Your task to perform on an android device: uninstall "Clock" Image 0: 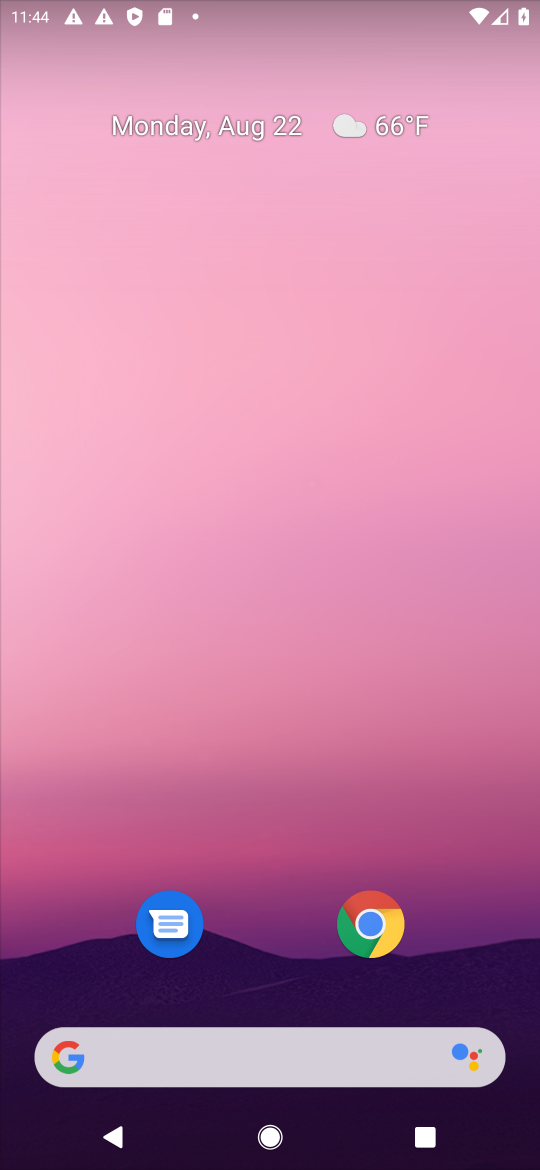
Step 0: drag from (475, 687) to (472, 100)
Your task to perform on an android device: uninstall "Clock" Image 1: 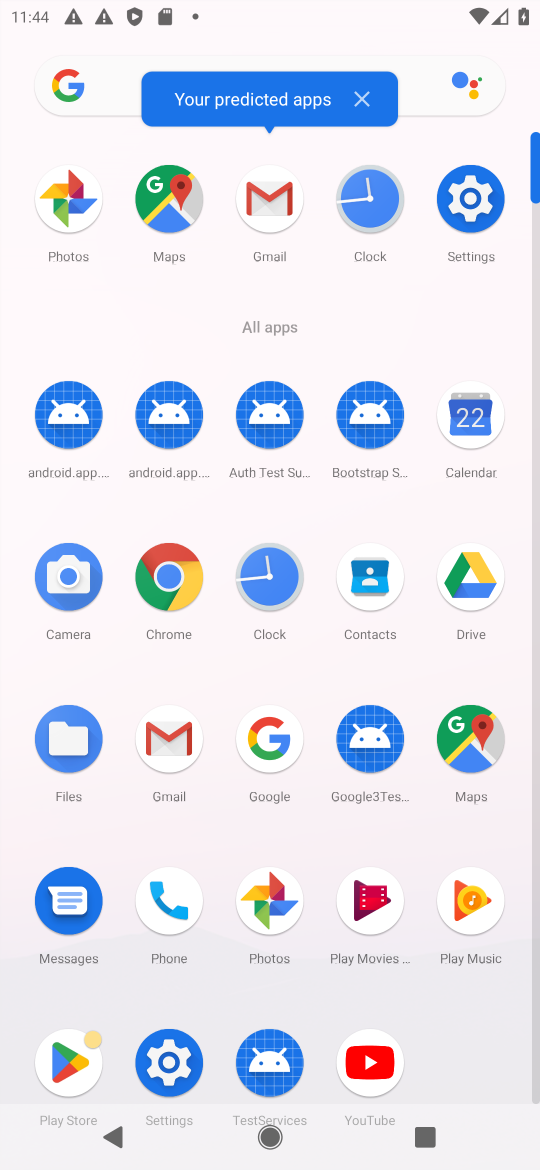
Step 1: drag from (447, 1008) to (422, 412)
Your task to perform on an android device: uninstall "Clock" Image 2: 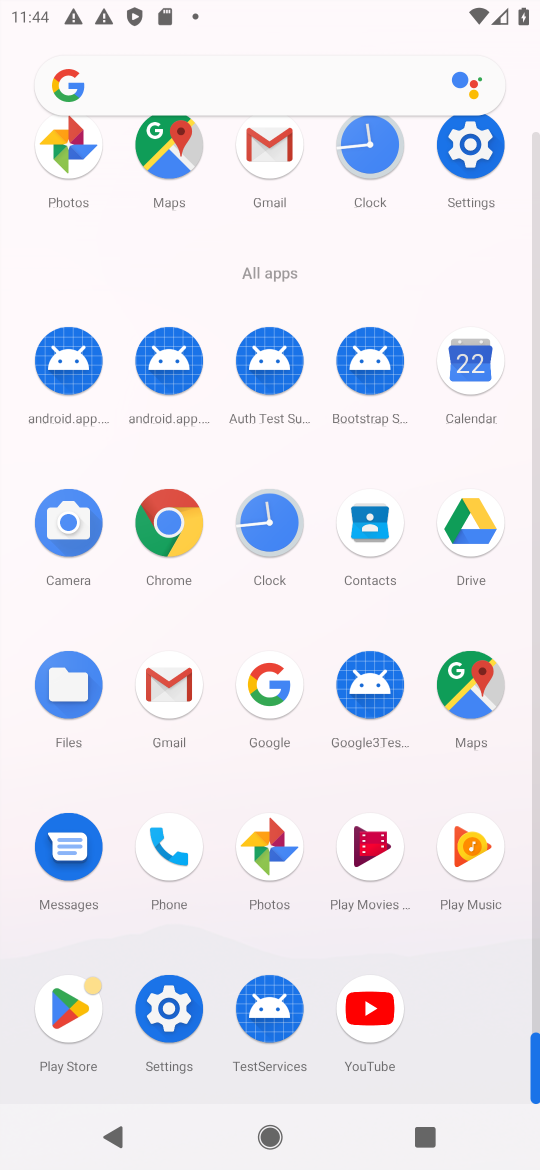
Step 2: click (62, 1009)
Your task to perform on an android device: uninstall "Clock" Image 3: 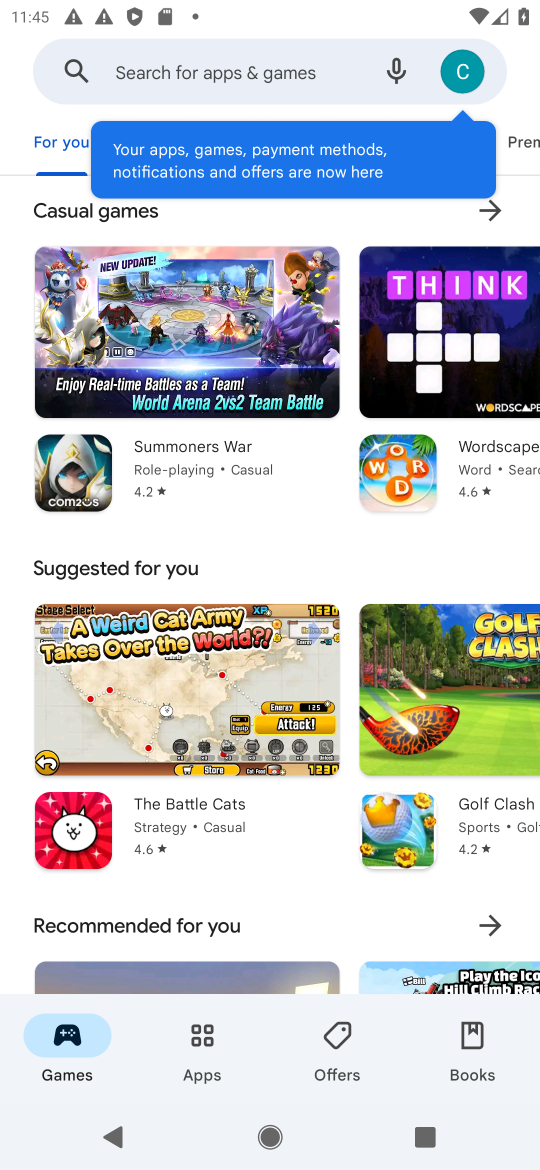
Step 3: click (176, 72)
Your task to perform on an android device: uninstall "Clock" Image 4: 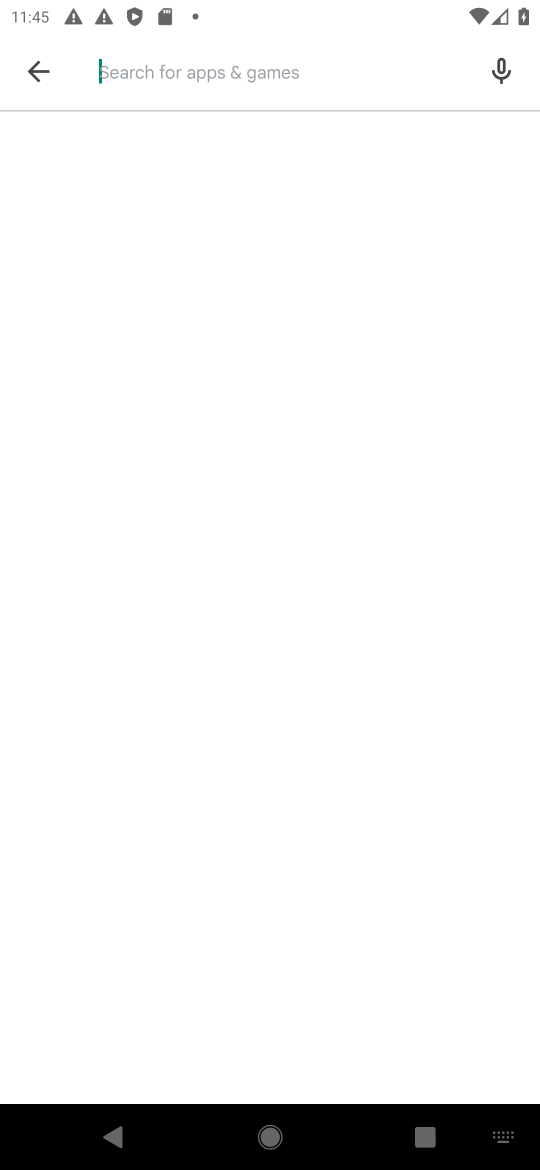
Step 4: type "Clock"
Your task to perform on an android device: uninstall "Clock" Image 5: 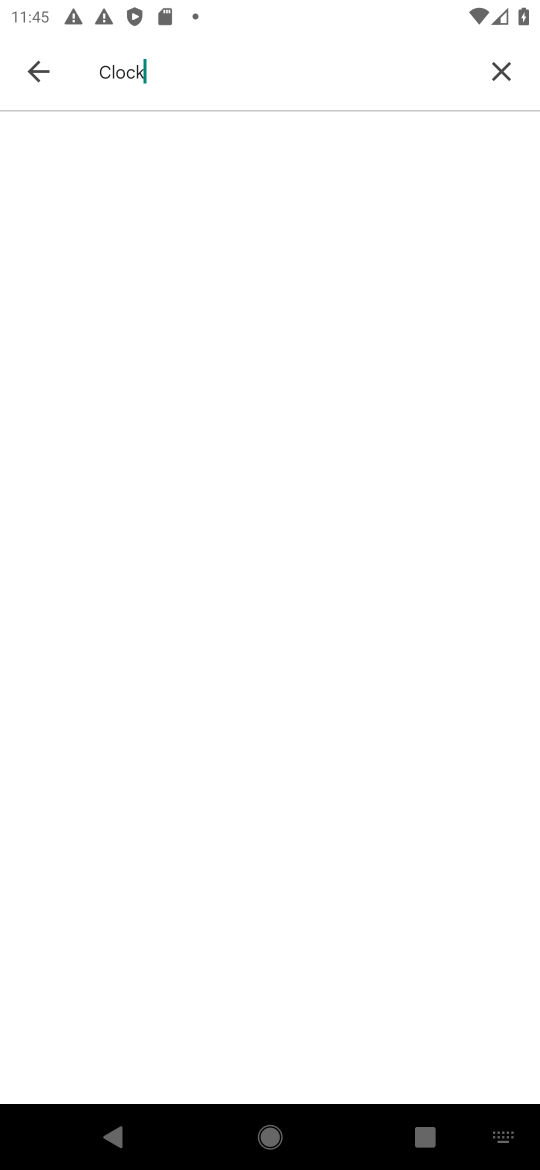
Step 5: press enter
Your task to perform on an android device: uninstall "Clock" Image 6: 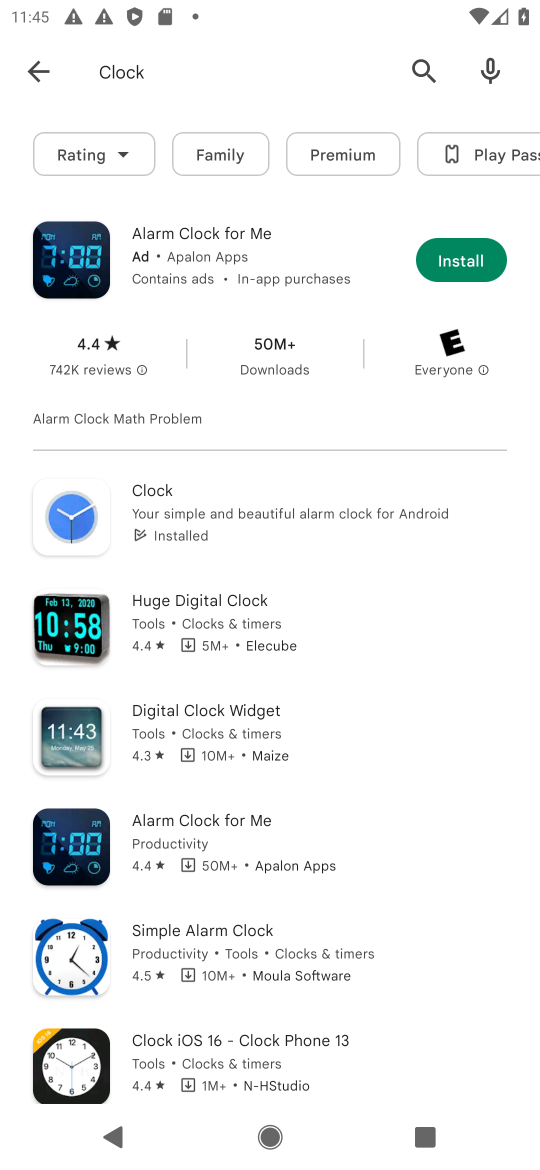
Step 6: click (219, 504)
Your task to perform on an android device: uninstall "Clock" Image 7: 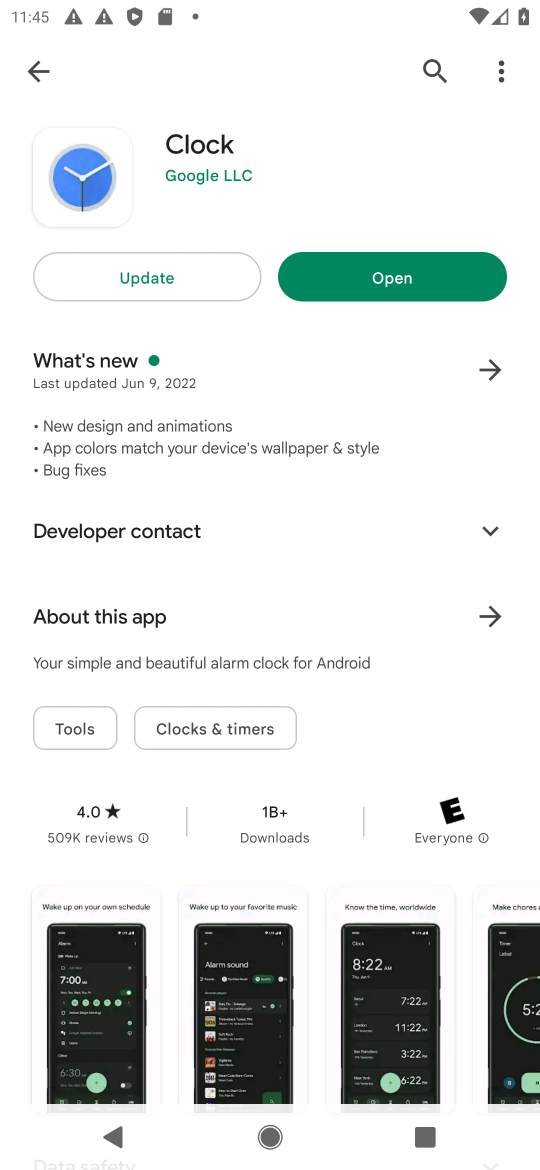
Step 7: task complete